Your task to perform on an android device: turn on the 12-hour format for clock Image 0: 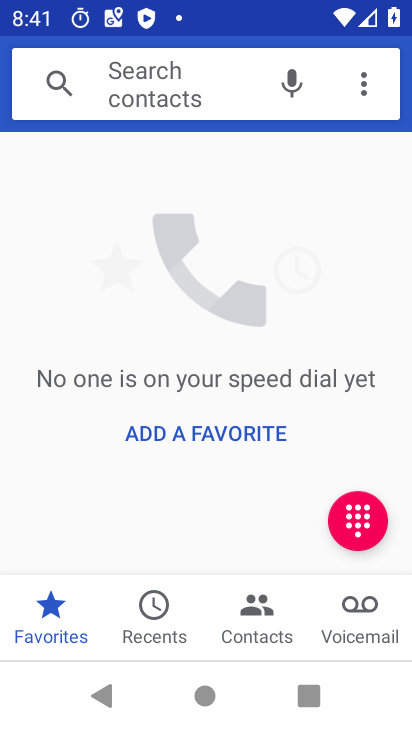
Step 0: press home button
Your task to perform on an android device: turn on the 12-hour format for clock Image 1: 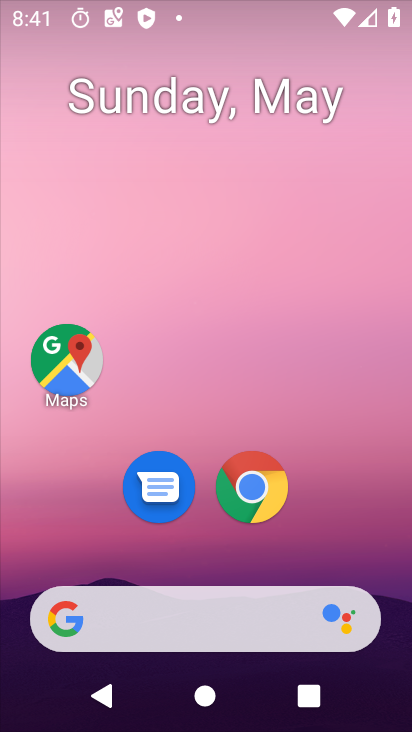
Step 1: drag from (20, 614) to (285, 176)
Your task to perform on an android device: turn on the 12-hour format for clock Image 2: 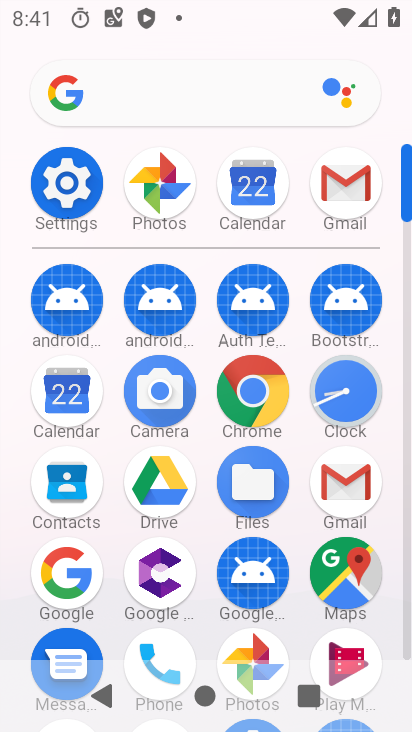
Step 2: click (341, 393)
Your task to perform on an android device: turn on the 12-hour format for clock Image 3: 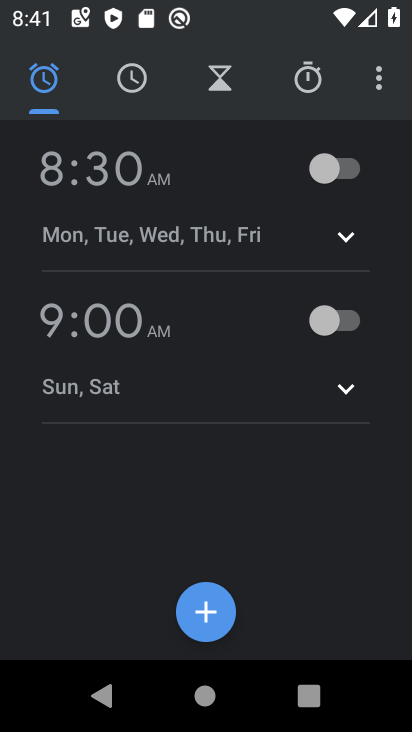
Step 3: click (378, 70)
Your task to perform on an android device: turn on the 12-hour format for clock Image 4: 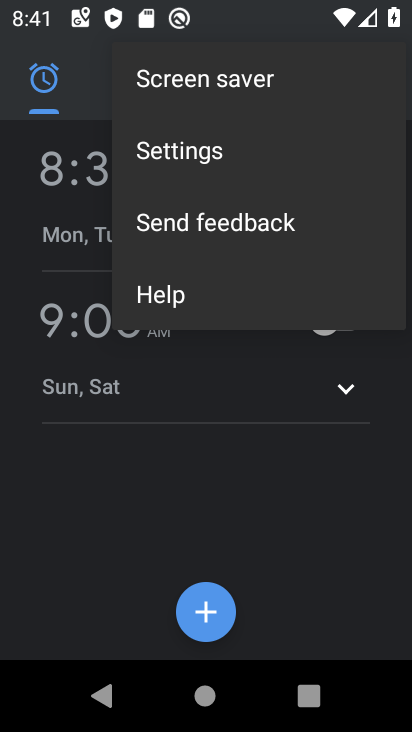
Step 4: click (268, 172)
Your task to perform on an android device: turn on the 12-hour format for clock Image 5: 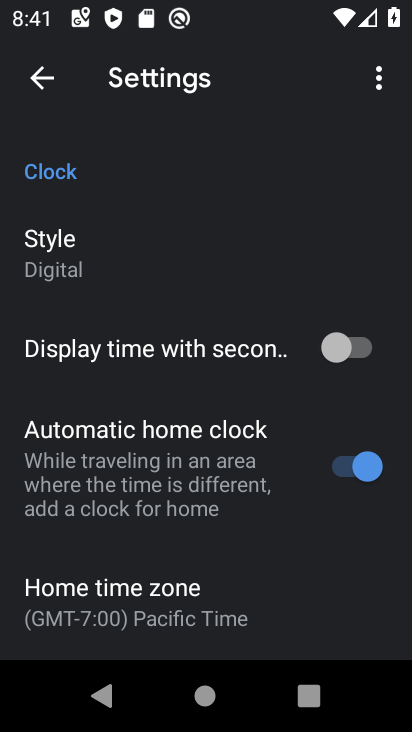
Step 5: drag from (35, 462) to (187, 116)
Your task to perform on an android device: turn on the 12-hour format for clock Image 6: 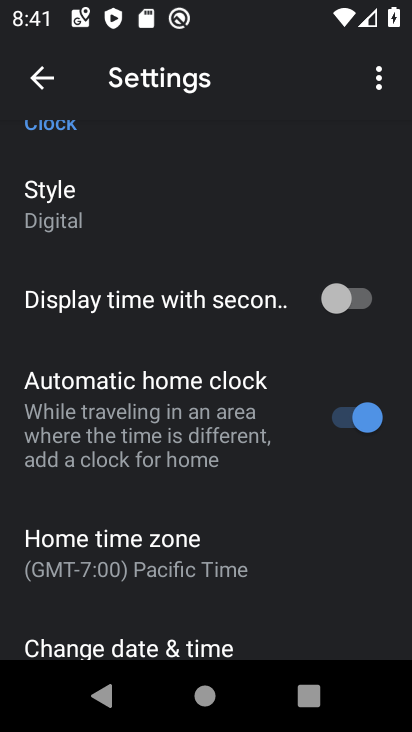
Step 6: drag from (61, 391) to (143, 161)
Your task to perform on an android device: turn on the 12-hour format for clock Image 7: 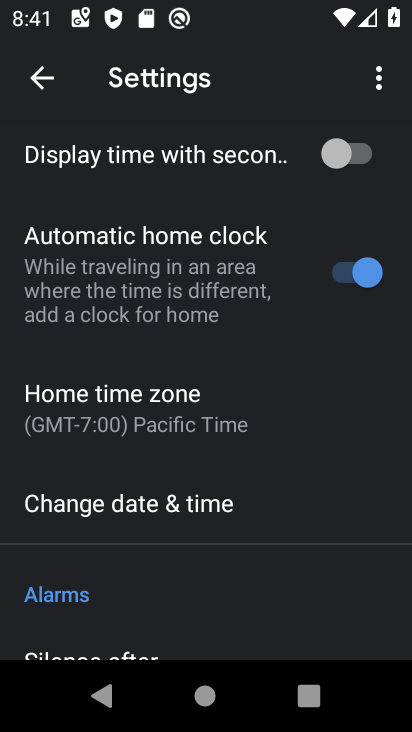
Step 7: click (77, 511)
Your task to perform on an android device: turn on the 12-hour format for clock Image 8: 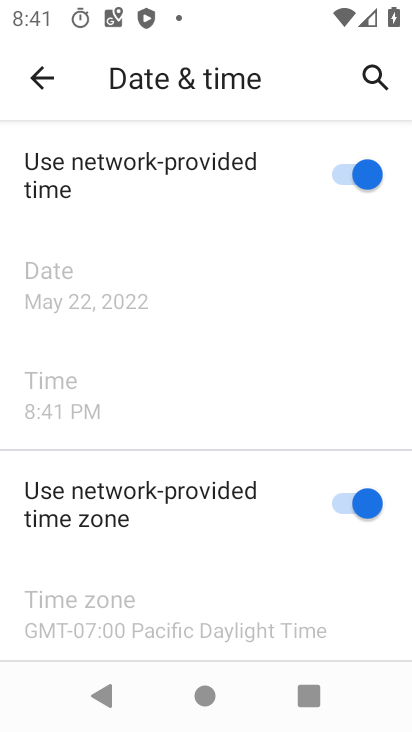
Step 8: task complete